Your task to perform on an android device: delete location history Image 0: 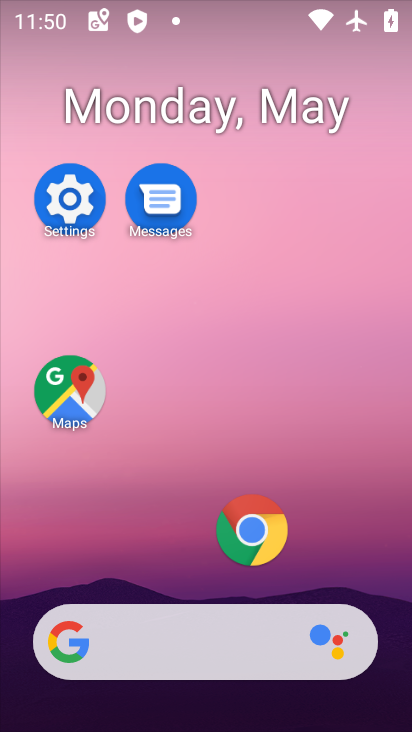
Step 0: drag from (201, 589) to (320, 40)
Your task to perform on an android device: delete location history Image 1: 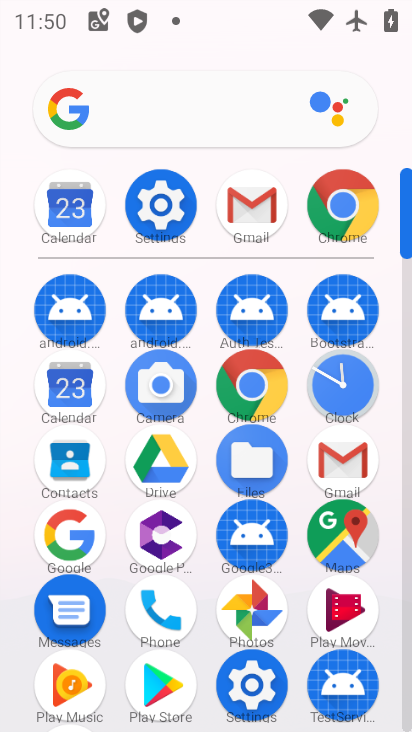
Step 1: click (263, 699)
Your task to perform on an android device: delete location history Image 2: 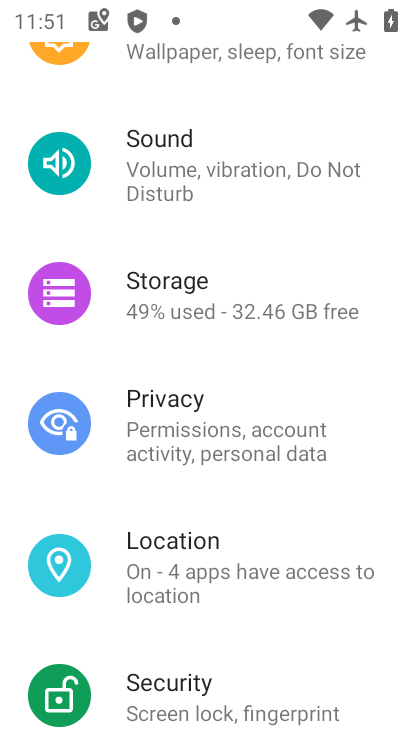
Step 2: click (160, 578)
Your task to perform on an android device: delete location history Image 3: 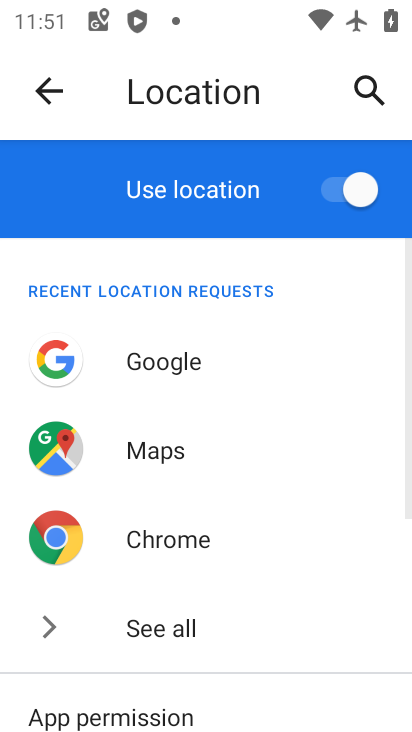
Step 3: drag from (181, 576) to (260, 33)
Your task to perform on an android device: delete location history Image 4: 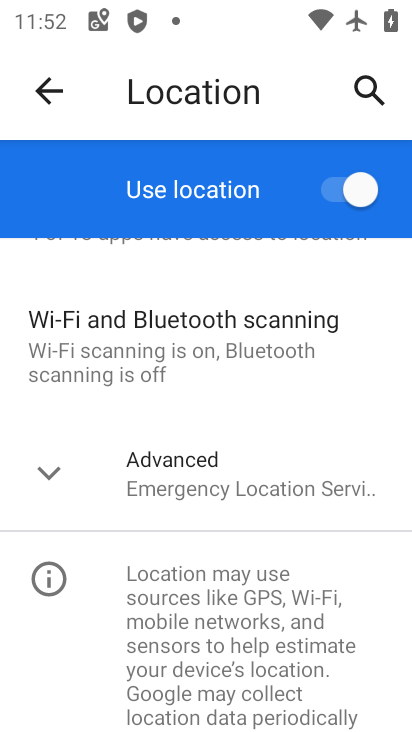
Step 4: click (180, 479)
Your task to perform on an android device: delete location history Image 5: 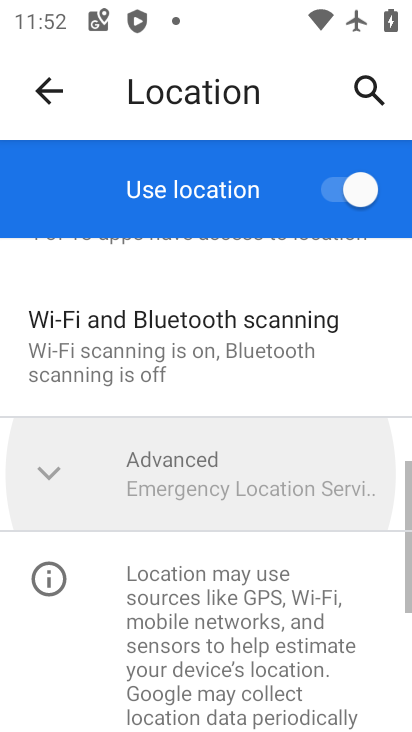
Step 5: drag from (180, 487) to (219, 164)
Your task to perform on an android device: delete location history Image 6: 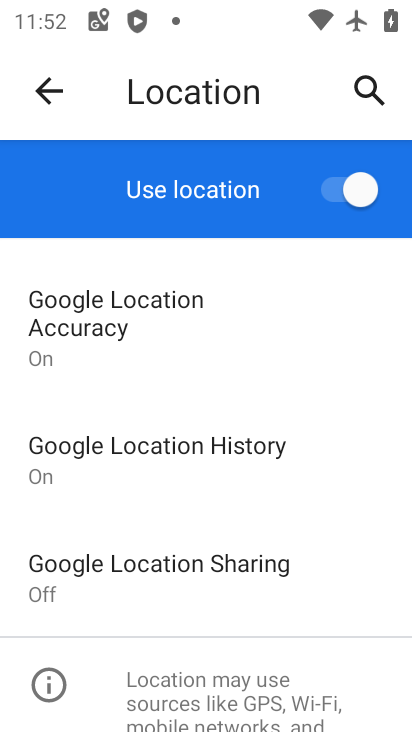
Step 6: click (216, 462)
Your task to perform on an android device: delete location history Image 7: 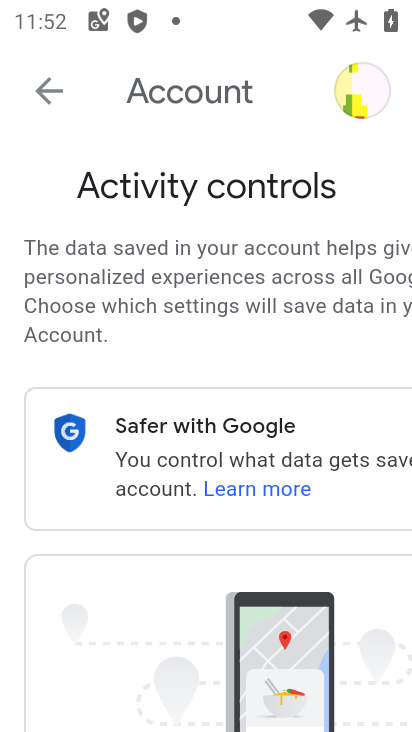
Step 7: drag from (181, 626) to (201, 250)
Your task to perform on an android device: delete location history Image 8: 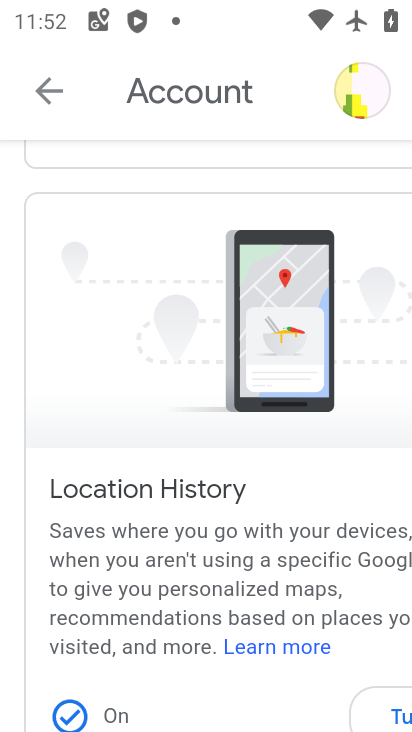
Step 8: drag from (200, 606) to (200, 275)
Your task to perform on an android device: delete location history Image 9: 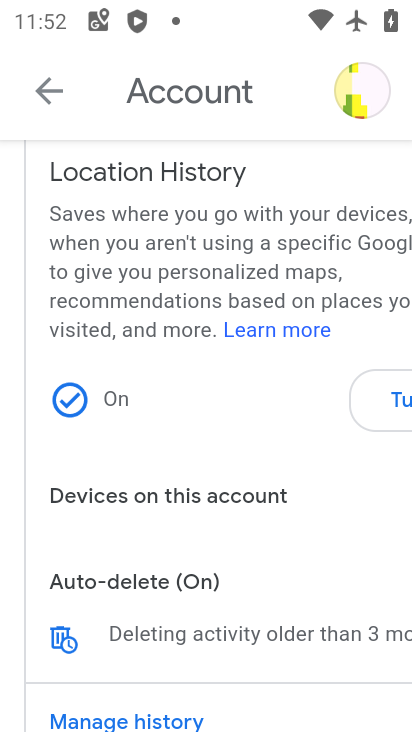
Step 9: click (255, 628)
Your task to perform on an android device: delete location history Image 10: 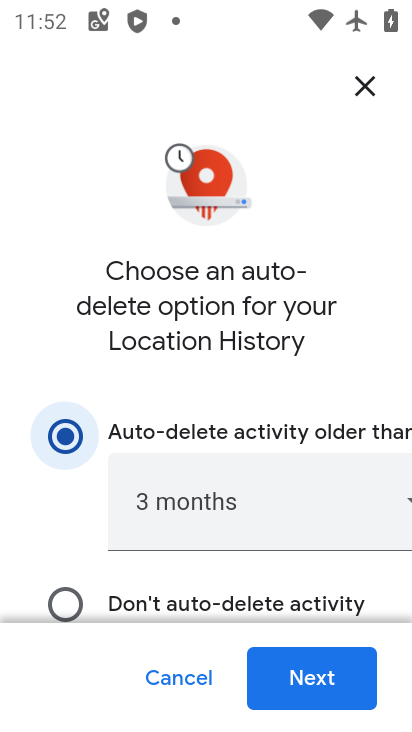
Step 10: click (219, 516)
Your task to perform on an android device: delete location history Image 11: 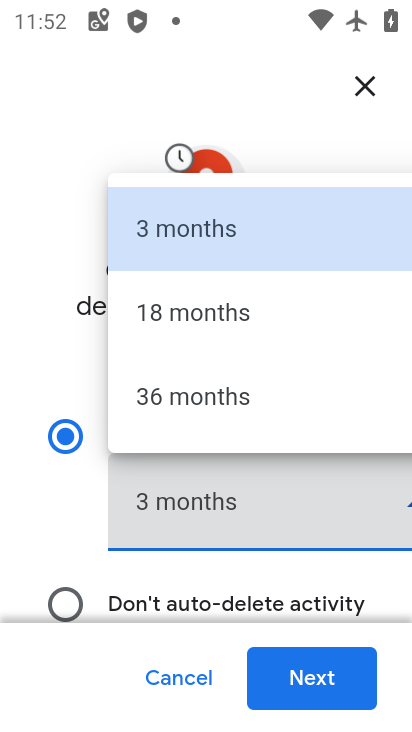
Step 11: click (213, 324)
Your task to perform on an android device: delete location history Image 12: 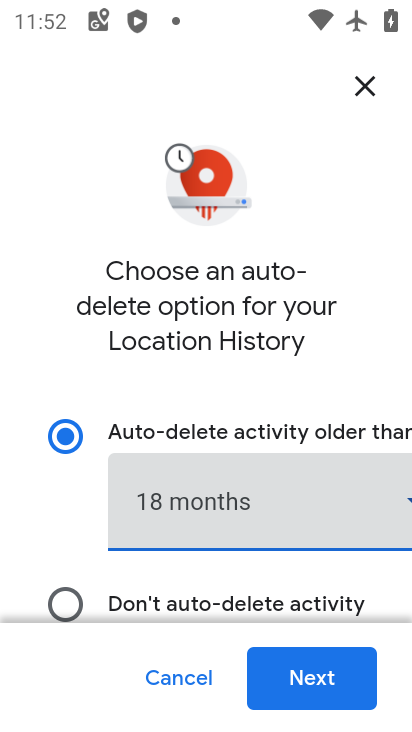
Step 12: drag from (311, 584) to (311, 360)
Your task to perform on an android device: delete location history Image 13: 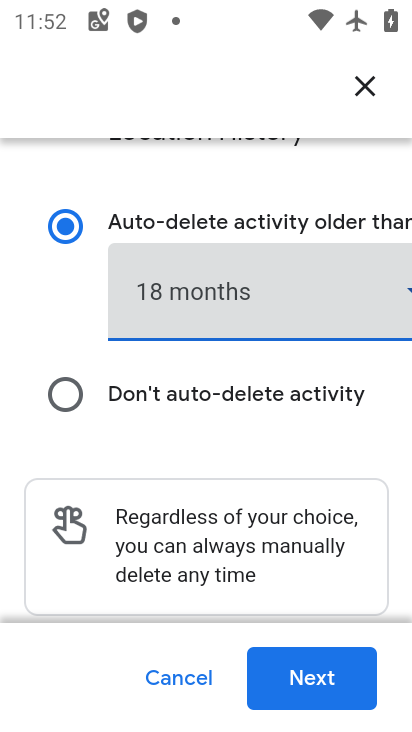
Step 13: click (317, 678)
Your task to perform on an android device: delete location history Image 14: 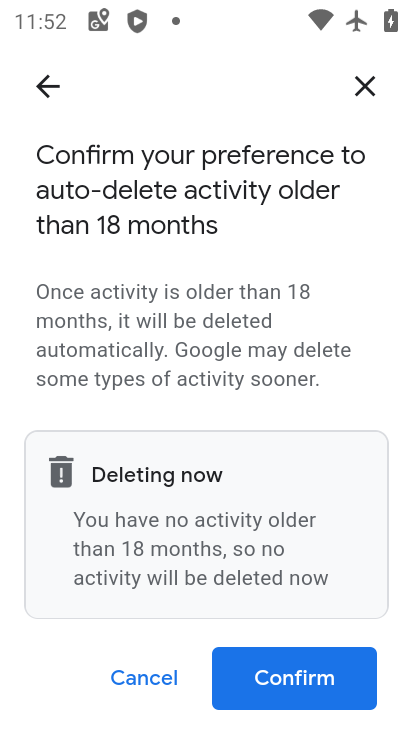
Step 14: click (311, 679)
Your task to perform on an android device: delete location history Image 15: 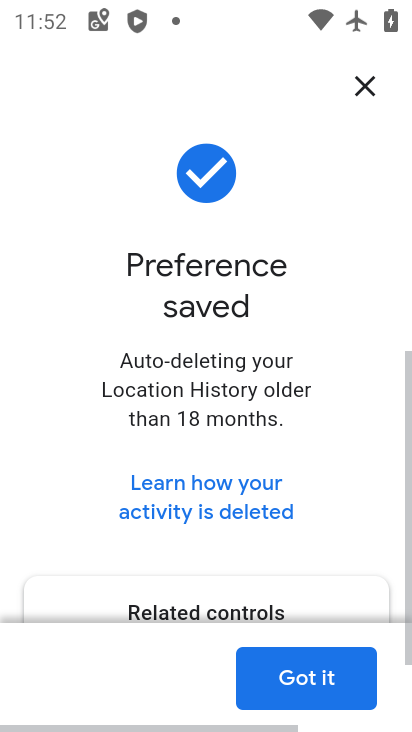
Step 15: click (326, 677)
Your task to perform on an android device: delete location history Image 16: 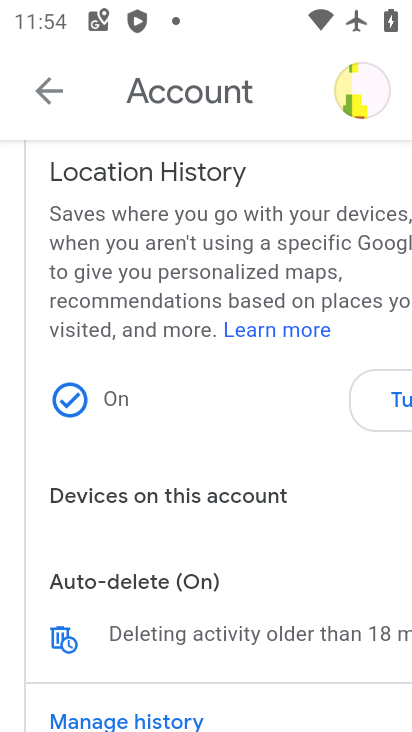
Step 16: task complete